Your task to perform on an android device: turn pop-ups on in chrome Image 0: 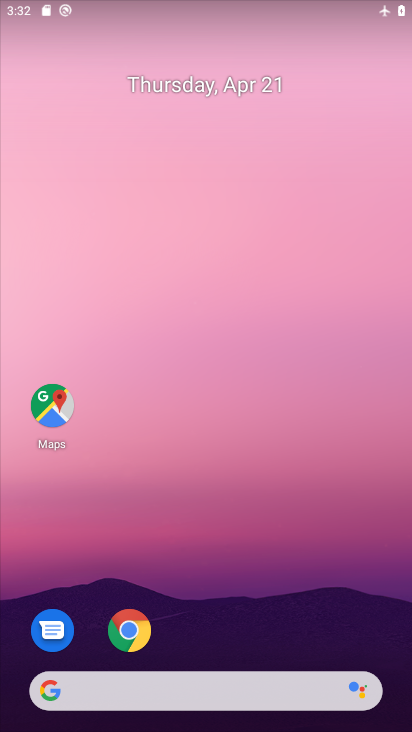
Step 0: drag from (172, 646) to (277, 117)
Your task to perform on an android device: turn pop-ups on in chrome Image 1: 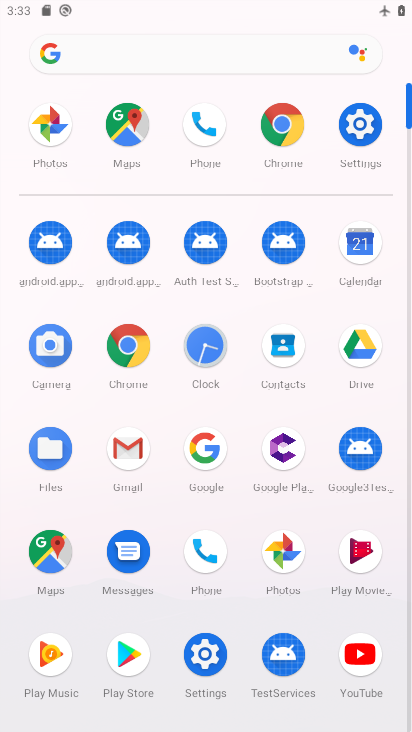
Step 1: click (134, 343)
Your task to perform on an android device: turn pop-ups on in chrome Image 2: 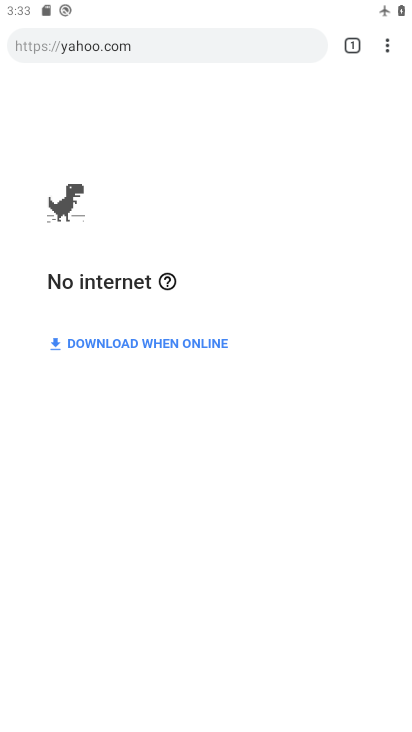
Step 2: drag from (384, 43) to (293, 508)
Your task to perform on an android device: turn pop-ups on in chrome Image 3: 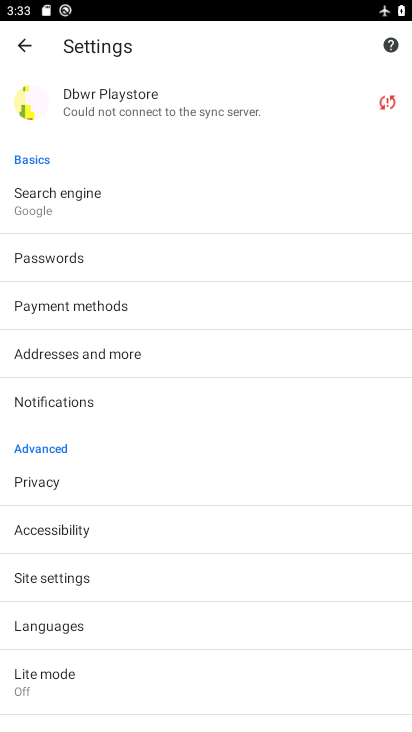
Step 3: click (82, 577)
Your task to perform on an android device: turn pop-ups on in chrome Image 4: 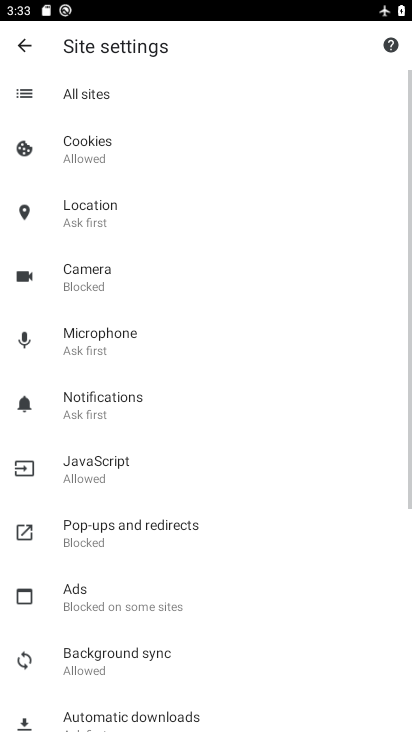
Step 4: click (117, 545)
Your task to perform on an android device: turn pop-ups on in chrome Image 5: 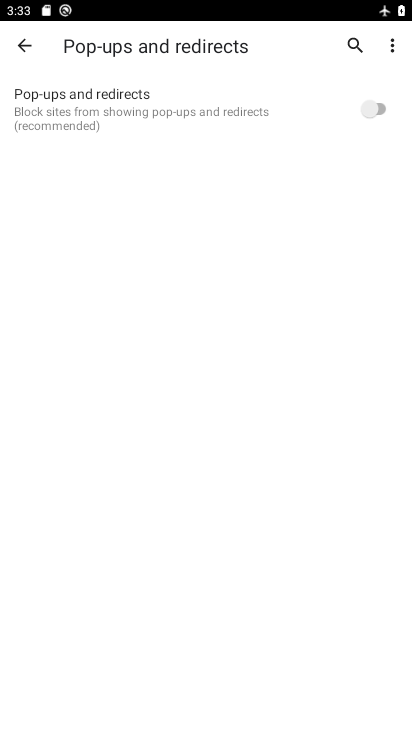
Step 5: click (341, 99)
Your task to perform on an android device: turn pop-ups on in chrome Image 6: 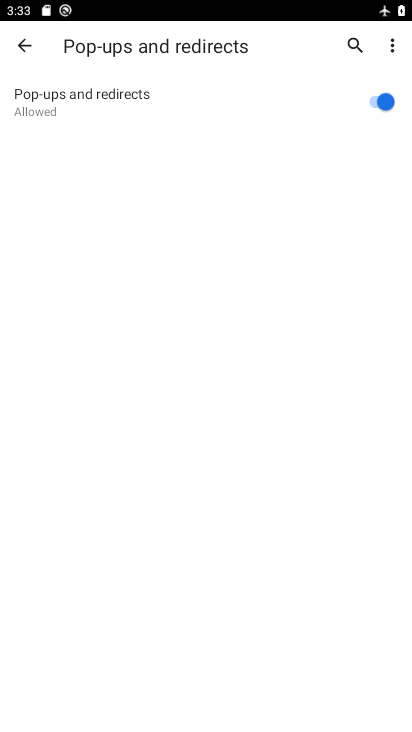
Step 6: task complete